Your task to perform on an android device: remove spam from my inbox in the gmail app Image 0: 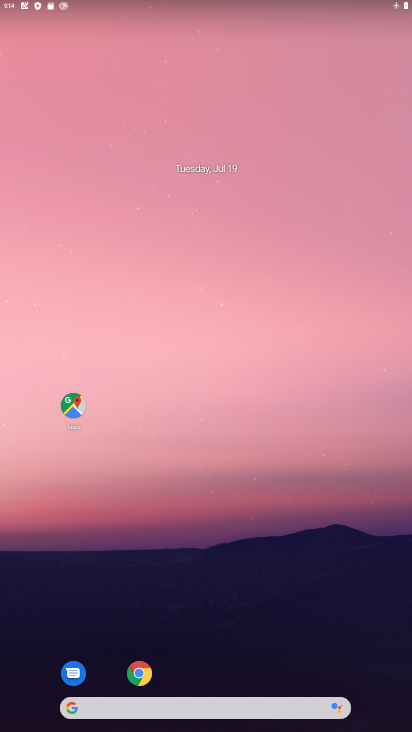
Step 0: drag from (177, 669) to (177, 94)
Your task to perform on an android device: remove spam from my inbox in the gmail app Image 1: 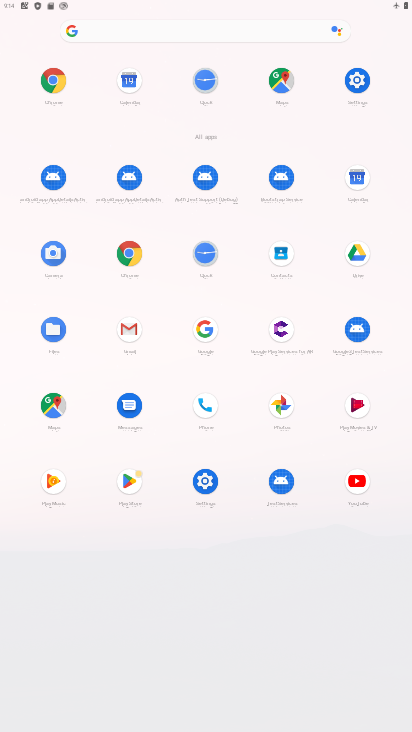
Step 1: click (131, 328)
Your task to perform on an android device: remove spam from my inbox in the gmail app Image 2: 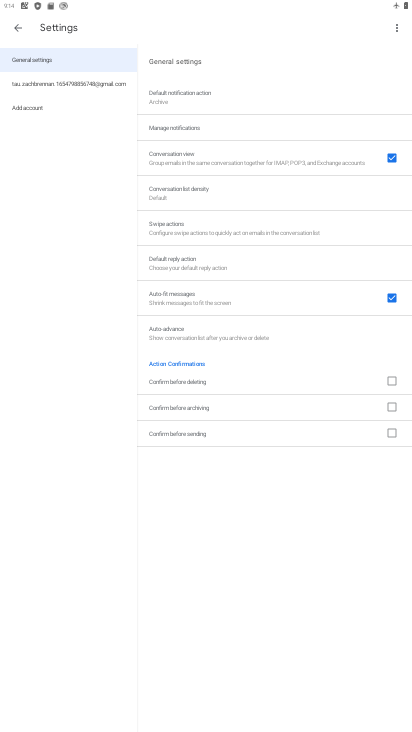
Step 2: click (20, 27)
Your task to perform on an android device: remove spam from my inbox in the gmail app Image 3: 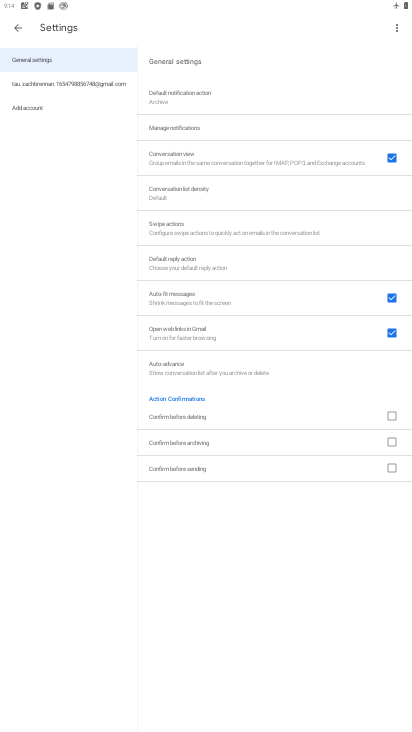
Step 3: click (21, 31)
Your task to perform on an android device: remove spam from my inbox in the gmail app Image 4: 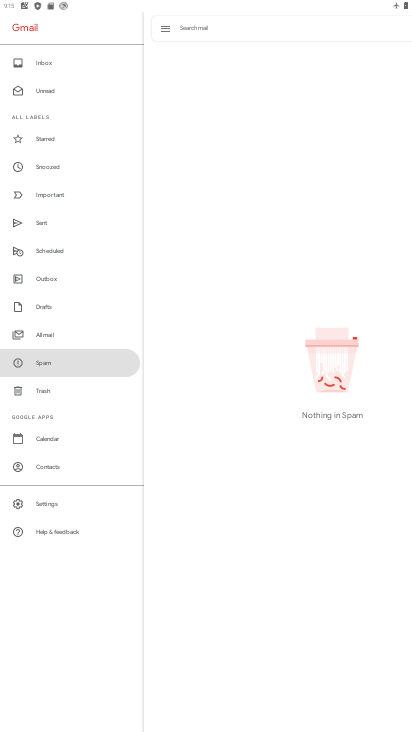
Step 4: click (243, 324)
Your task to perform on an android device: remove spam from my inbox in the gmail app Image 5: 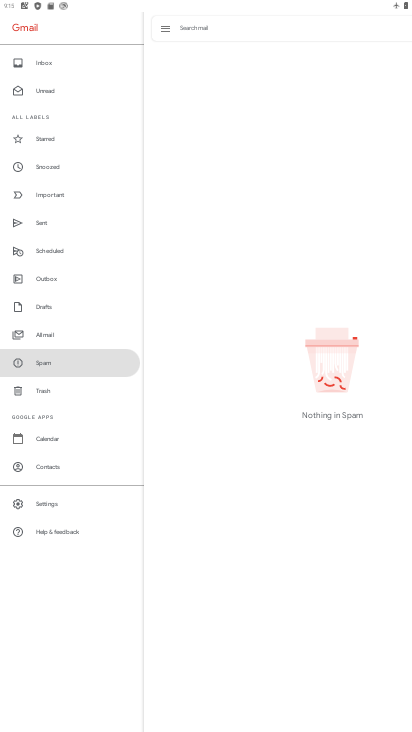
Step 5: task complete